Your task to perform on an android device: Open maps Image 0: 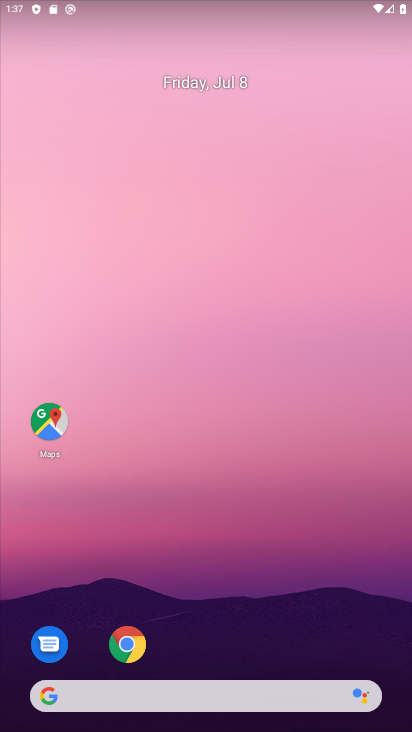
Step 0: drag from (198, 649) to (253, 95)
Your task to perform on an android device: Open maps Image 1: 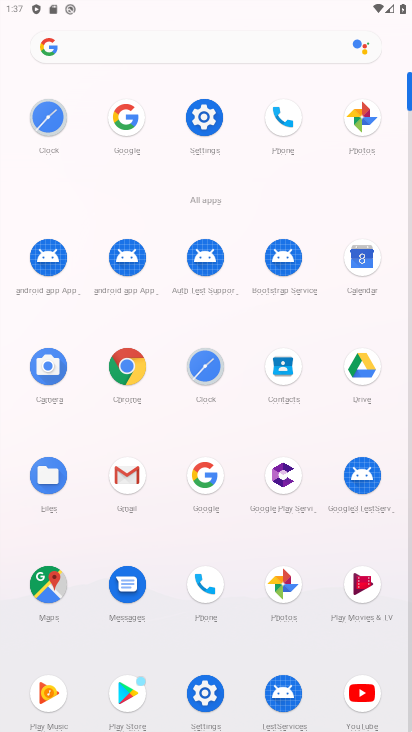
Step 1: click (53, 575)
Your task to perform on an android device: Open maps Image 2: 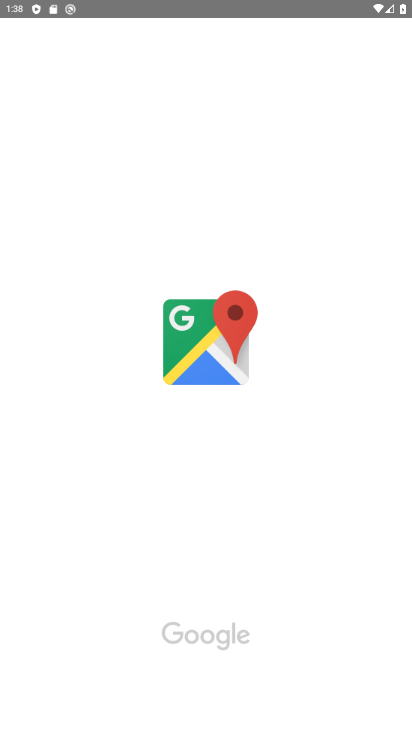
Step 2: task complete